Your task to perform on an android device: Go to eBay Image 0: 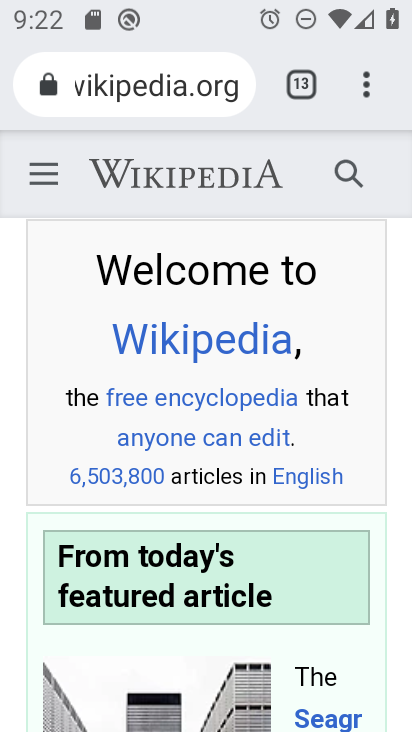
Step 0: click (365, 79)
Your task to perform on an android device: Go to eBay Image 1: 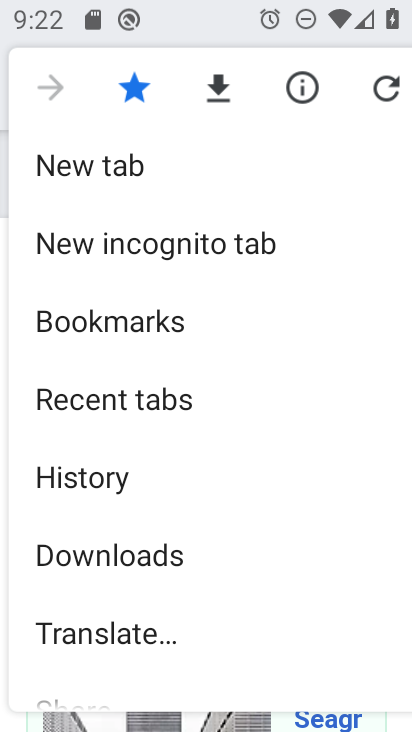
Step 1: click (108, 154)
Your task to perform on an android device: Go to eBay Image 2: 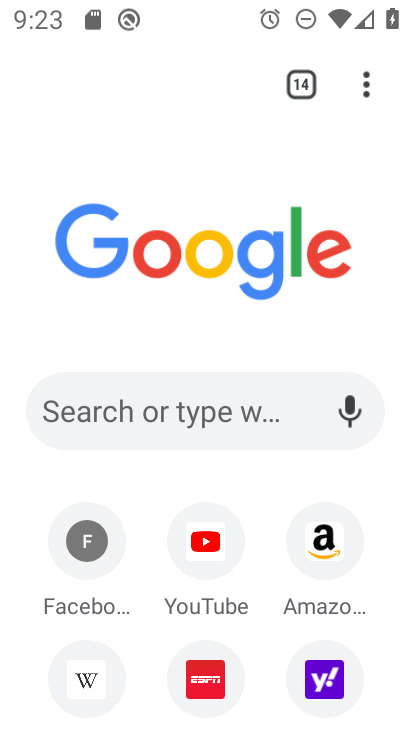
Step 2: click (199, 407)
Your task to perform on an android device: Go to eBay Image 3: 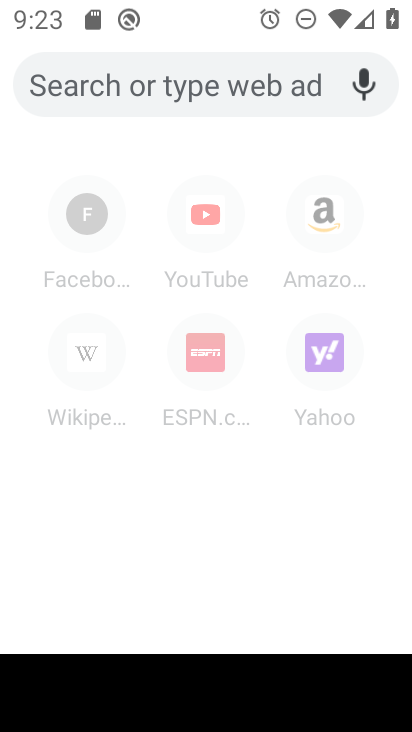
Step 3: type "ebay"
Your task to perform on an android device: Go to eBay Image 4: 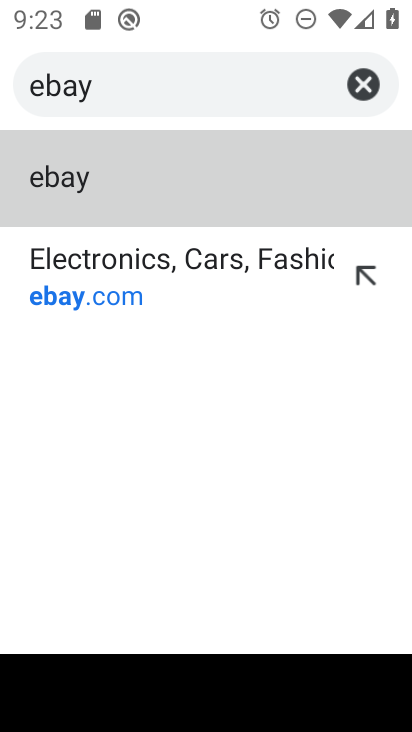
Step 4: click (79, 181)
Your task to perform on an android device: Go to eBay Image 5: 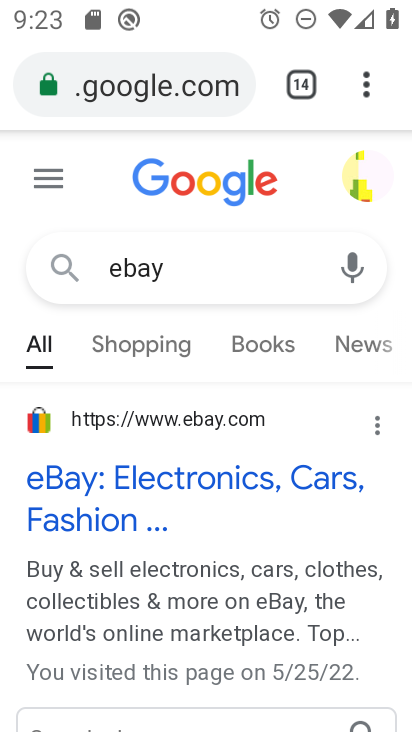
Step 5: task complete